Your task to perform on an android device: delete browsing data in the chrome app Image 0: 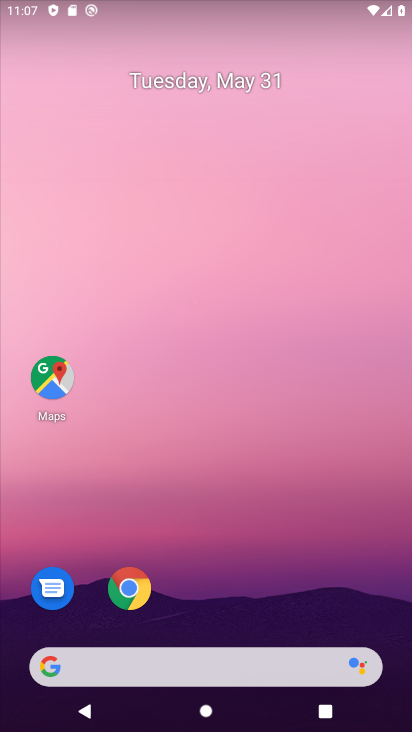
Step 0: click (124, 593)
Your task to perform on an android device: delete browsing data in the chrome app Image 1: 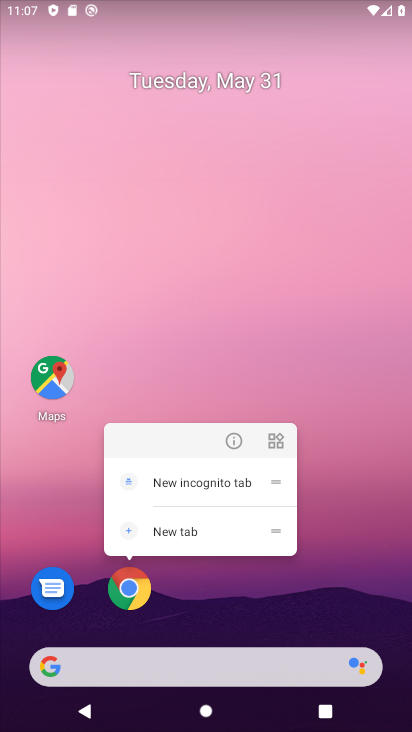
Step 1: click (225, 440)
Your task to perform on an android device: delete browsing data in the chrome app Image 2: 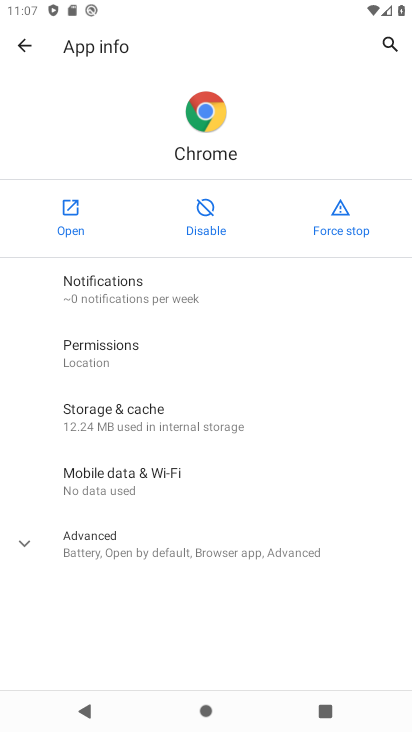
Step 2: click (73, 229)
Your task to perform on an android device: delete browsing data in the chrome app Image 3: 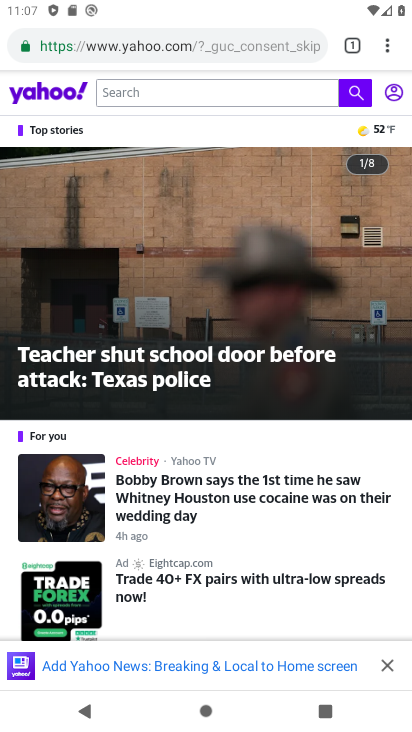
Step 3: click (389, 49)
Your task to perform on an android device: delete browsing data in the chrome app Image 4: 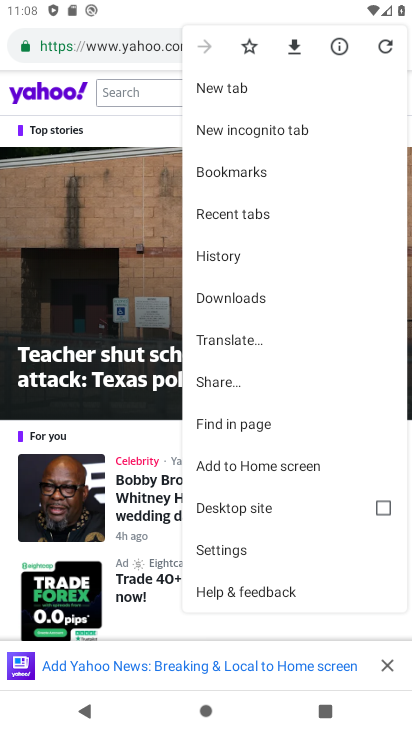
Step 4: click (230, 262)
Your task to perform on an android device: delete browsing data in the chrome app Image 5: 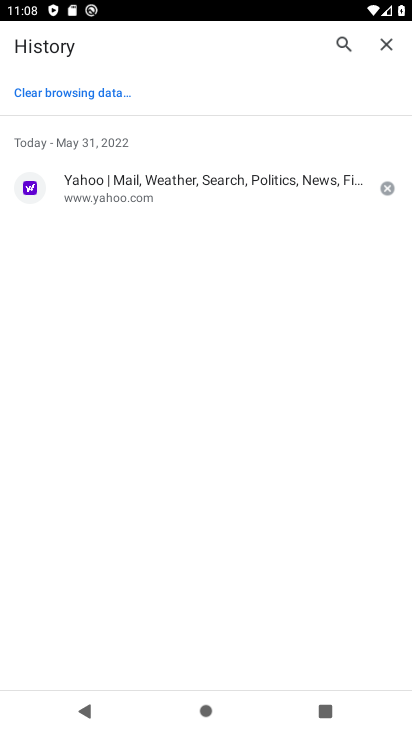
Step 5: click (87, 101)
Your task to perform on an android device: delete browsing data in the chrome app Image 6: 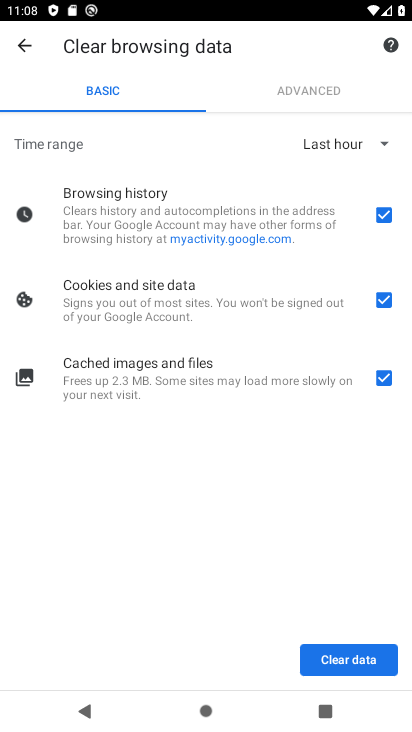
Step 6: click (385, 300)
Your task to perform on an android device: delete browsing data in the chrome app Image 7: 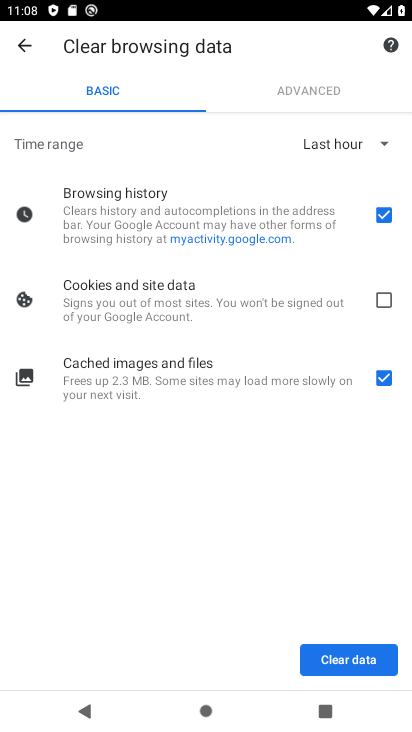
Step 7: click (376, 371)
Your task to perform on an android device: delete browsing data in the chrome app Image 8: 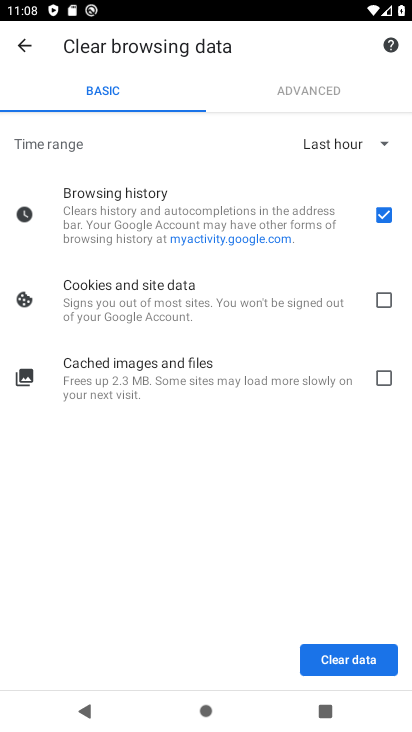
Step 8: click (353, 660)
Your task to perform on an android device: delete browsing data in the chrome app Image 9: 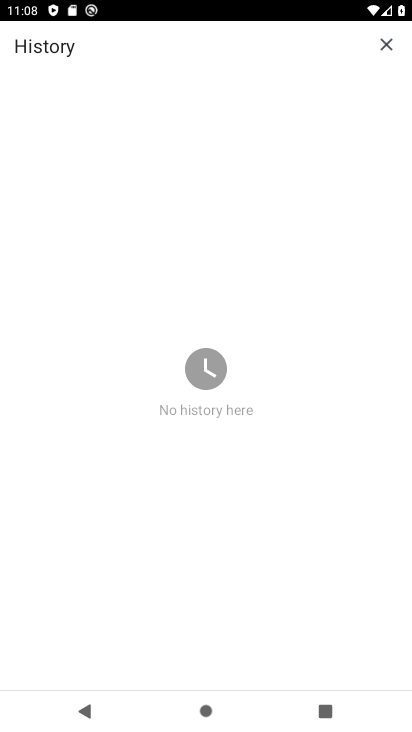
Step 9: task complete